Your task to perform on an android device: Open the Play Movies app and select the watchlist tab. Image 0: 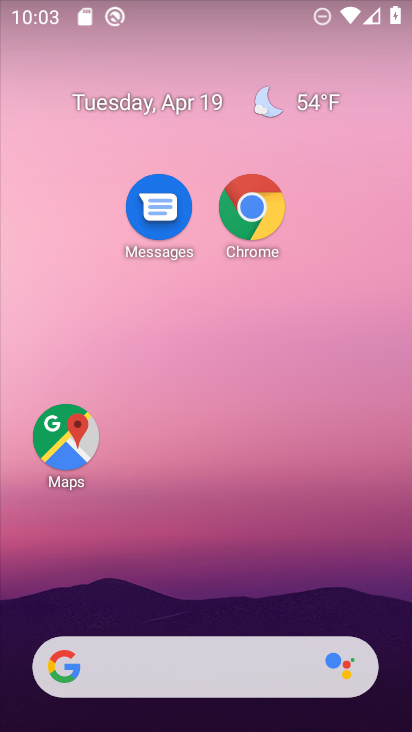
Step 0: drag from (216, 630) to (296, 192)
Your task to perform on an android device: Open the Play Movies app and select the watchlist tab. Image 1: 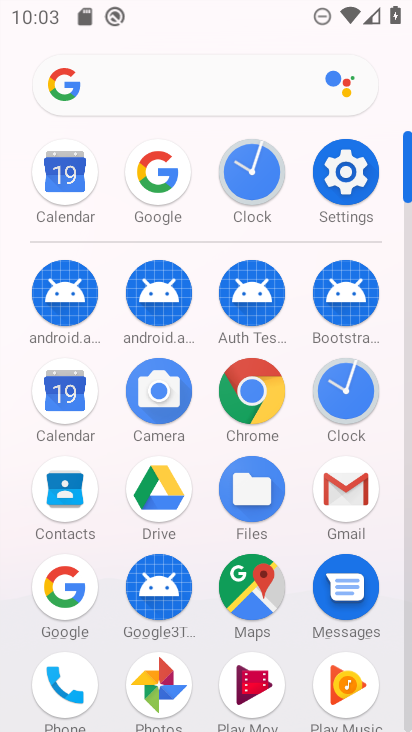
Step 1: click (260, 689)
Your task to perform on an android device: Open the Play Movies app and select the watchlist tab. Image 2: 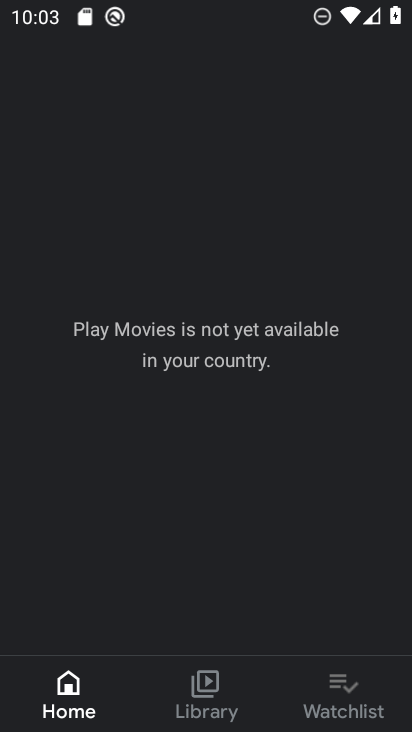
Step 2: click (343, 695)
Your task to perform on an android device: Open the Play Movies app and select the watchlist tab. Image 3: 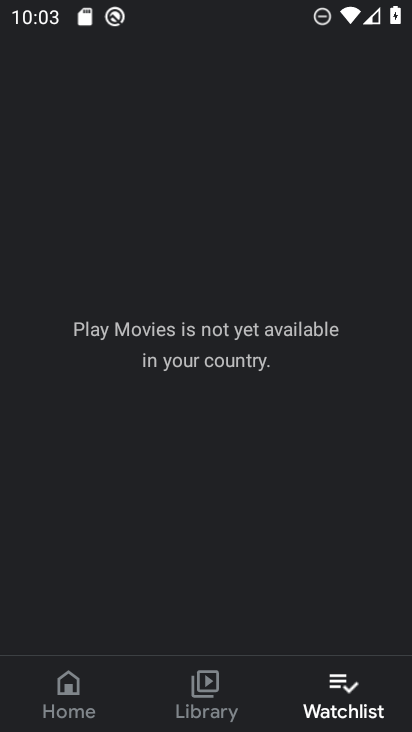
Step 3: task complete